Your task to perform on an android device: Open internet settings Image 0: 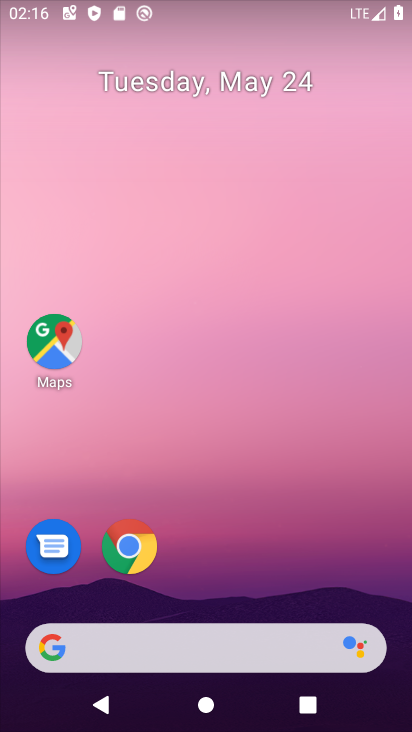
Step 0: click (385, 32)
Your task to perform on an android device: Open internet settings Image 1: 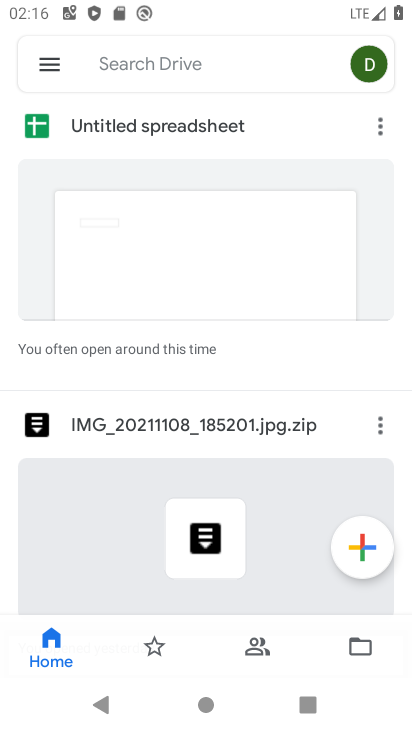
Step 1: press home button
Your task to perform on an android device: Open internet settings Image 2: 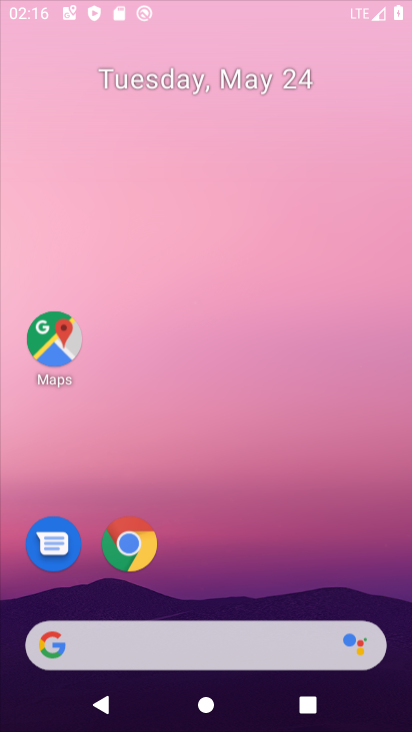
Step 2: drag from (195, 520) to (358, 5)
Your task to perform on an android device: Open internet settings Image 3: 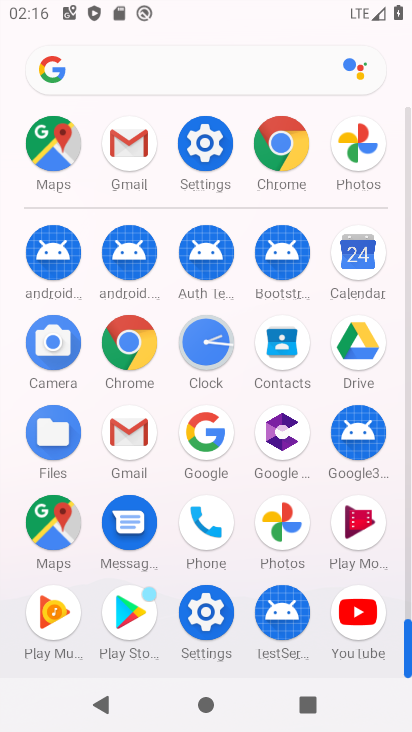
Step 3: click (187, 140)
Your task to perform on an android device: Open internet settings Image 4: 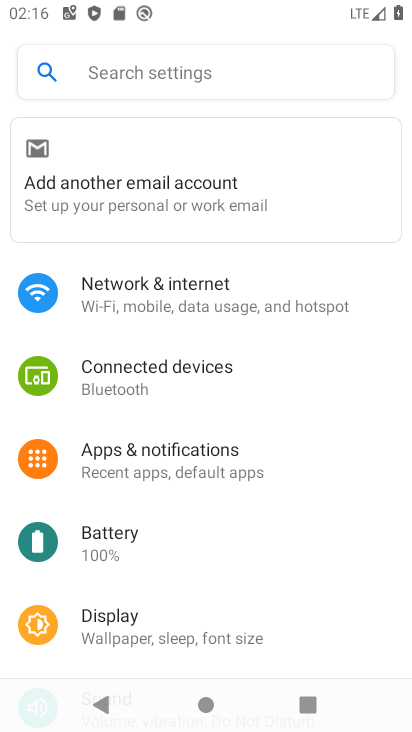
Step 4: click (158, 307)
Your task to perform on an android device: Open internet settings Image 5: 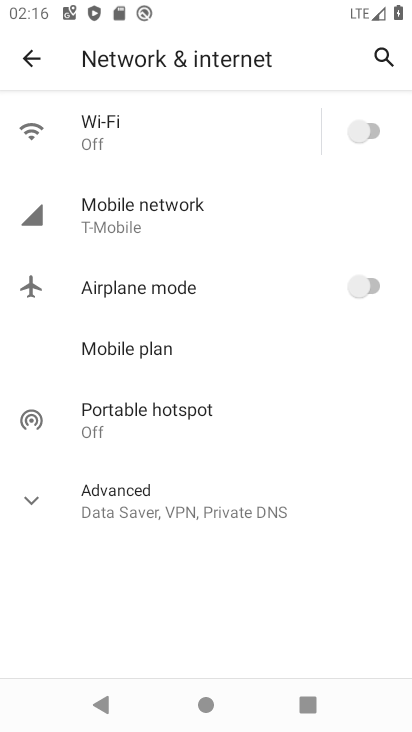
Step 5: task complete